Your task to perform on an android device: Open the Play Movies app and select the watchlist tab. Image 0: 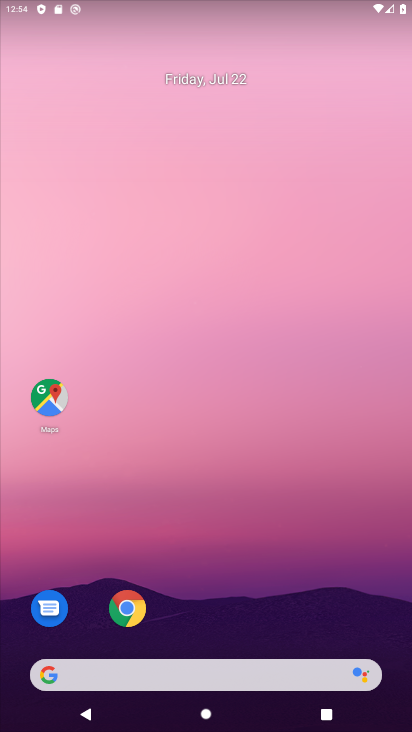
Step 0: drag from (397, 687) to (321, 70)
Your task to perform on an android device: Open the Play Movies app and select the watchlist tab. Image 1: 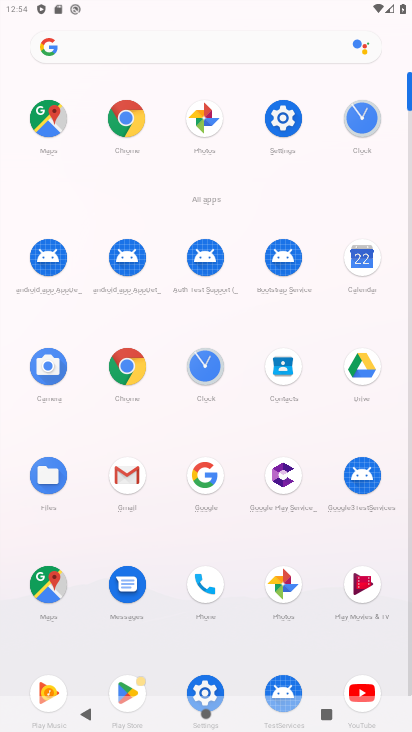
Step 1: click (355, 593)
Your task to perform on an android device: Open the Play Movies app and select the watchlist tab. Image 2: 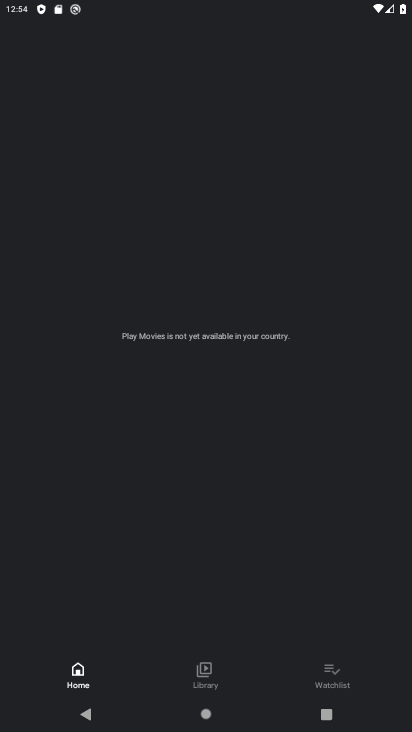
Step 2: click (329, 664)
Your task to perform on an android device: Open the Play Movies app and select the watchlist tab. Image 3: 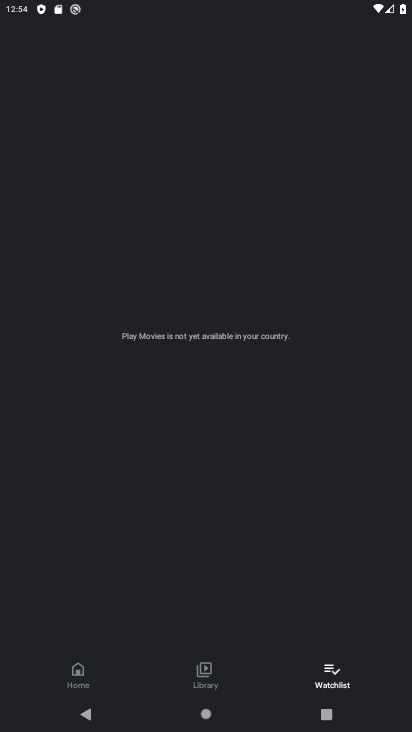
Step 3: task complete